Your task to perform on an android device: Open the map Image 0: 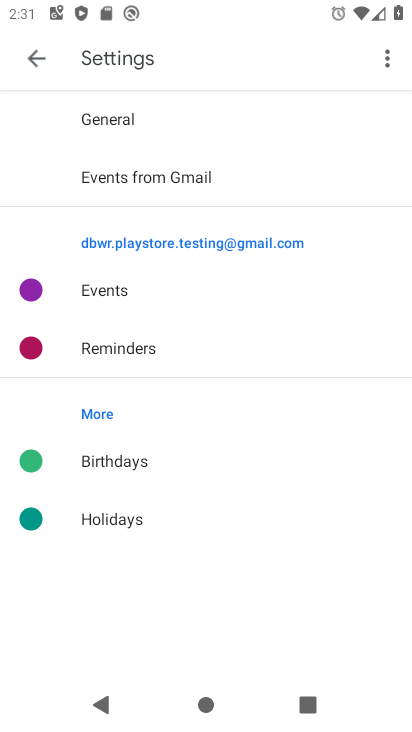
Step 0: press home button
Your task to perform on an android device: Open the map Image 1: 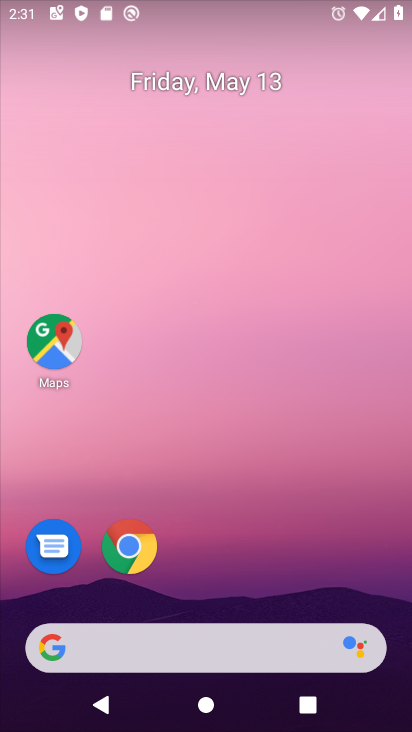
Step 1: drag from (254, 590) to (267, 143)
Your task to perform on an android device: Open the map Image 2: 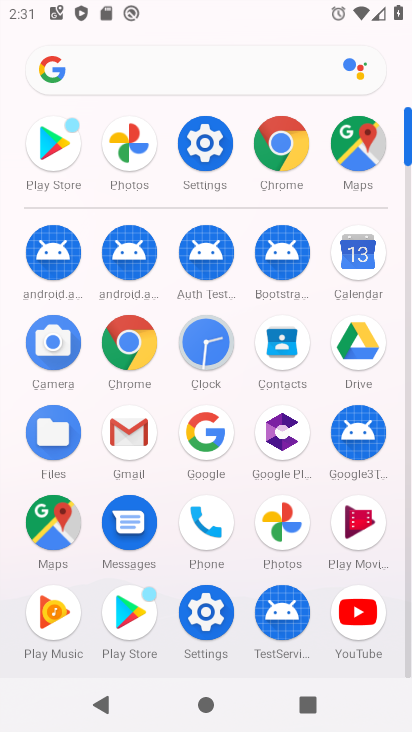
Step 2: click (354, 151)
Your task to perform on an android device: Open the map Image 3: 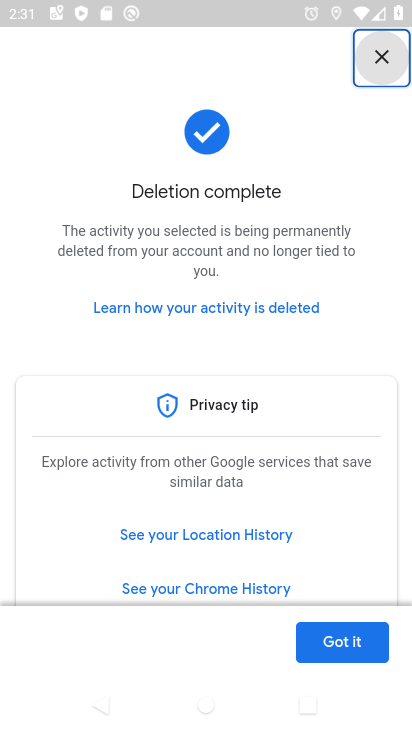
Step 3: click (332, 654)
Your task to perform on an android device: Open the map Image 4: 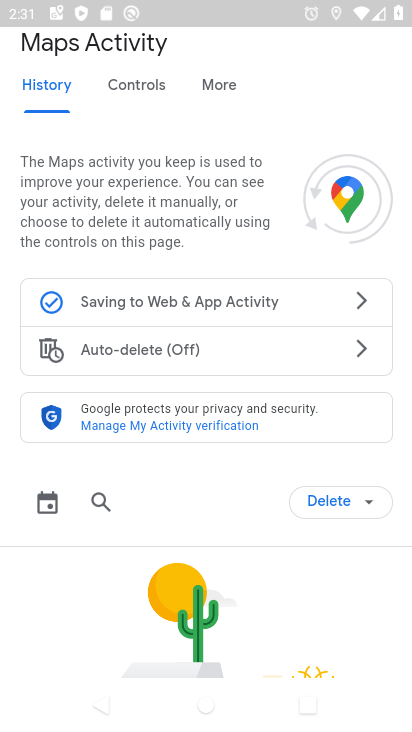
Step 4: task complete